Your task to perform on an android device: toggle javascript in the chrome app Image 0: 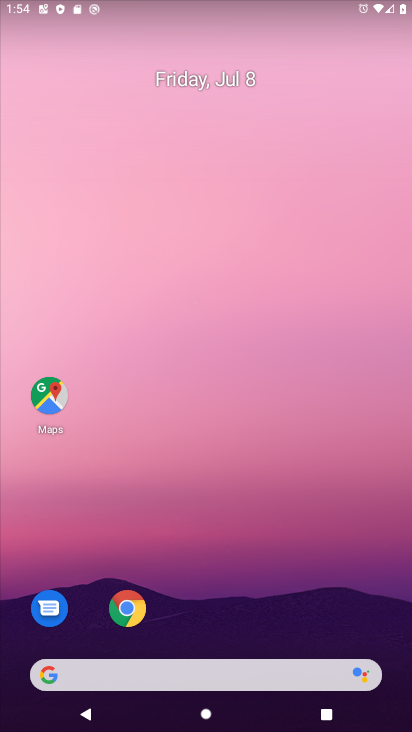
Step 0: click (136, 614)
Your task to perform on an android device: toggle javascript in the chrome app Image 1: 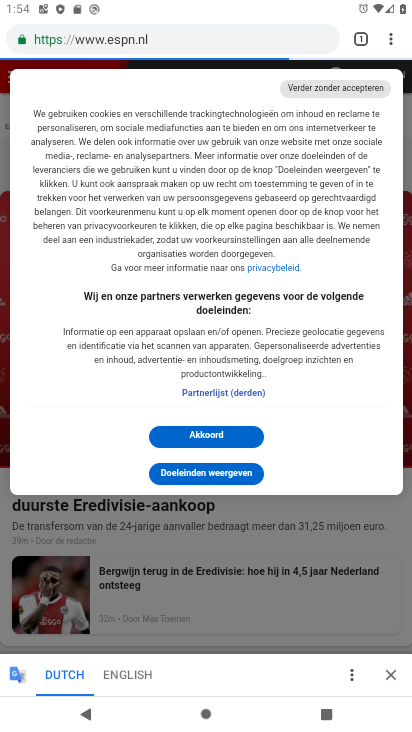
Step 1: click (390, 40)
Your task to perform on an android device: toggle javascript in the chrome app Image 2: 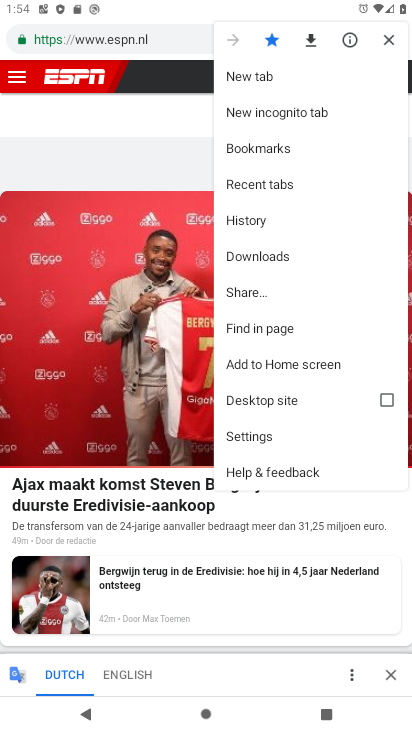
Step 2: click (400, 34)
Your task to perform on an android device: toggle javascript in the chrome app Image 3: 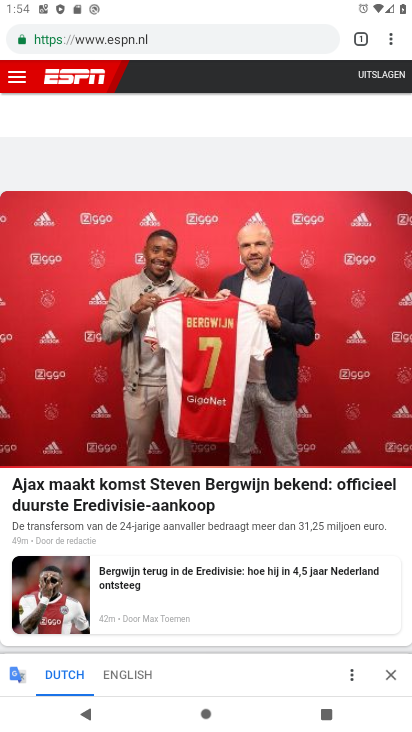
Step 3: click (395, 40)
Your task to perform on an android device: toggle javascript in the chrome app Image 4: 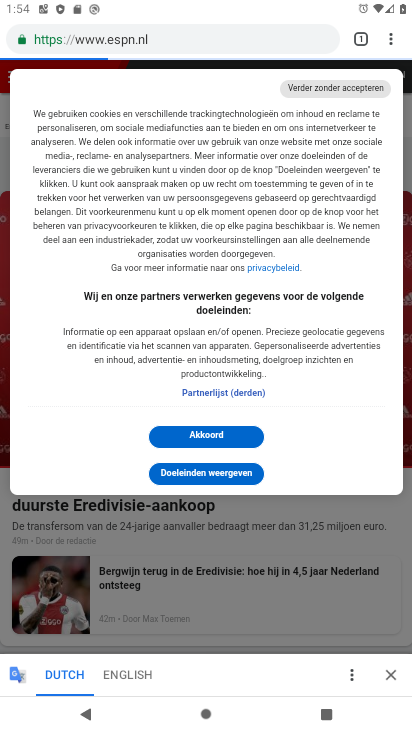
Step 4: click (395, 40)
Your task to perform on an android device: toggle javascript in the chrome app Image 5: 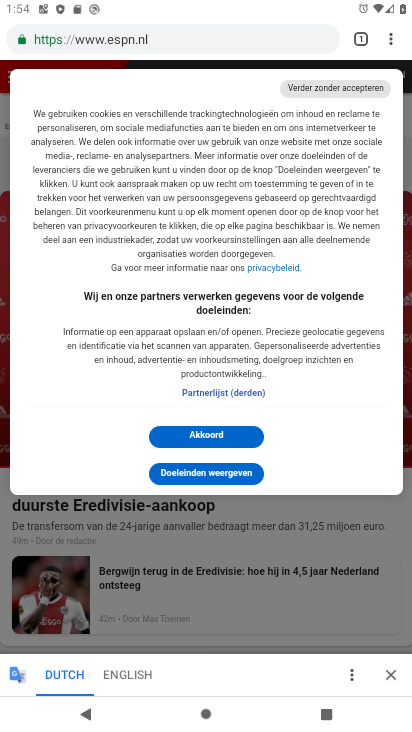
Step 5: click (395, 40)
Your task to perform on an android device: toggle javascript in the chrome app Image 6: 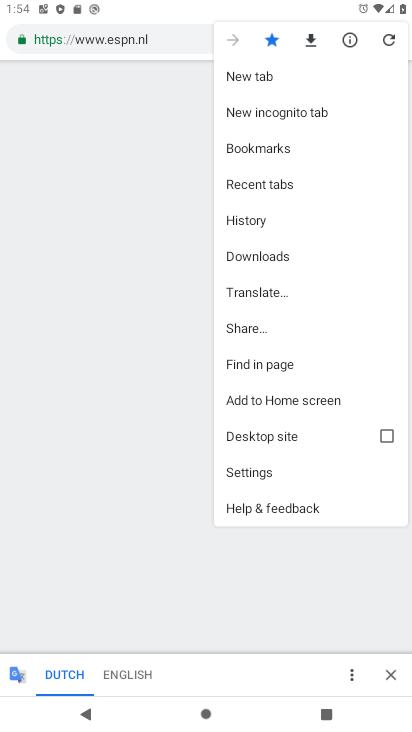
Step 6: click (288, 467)
Your task to perform on an android device: toggle javascript in the chrome app Image 7: 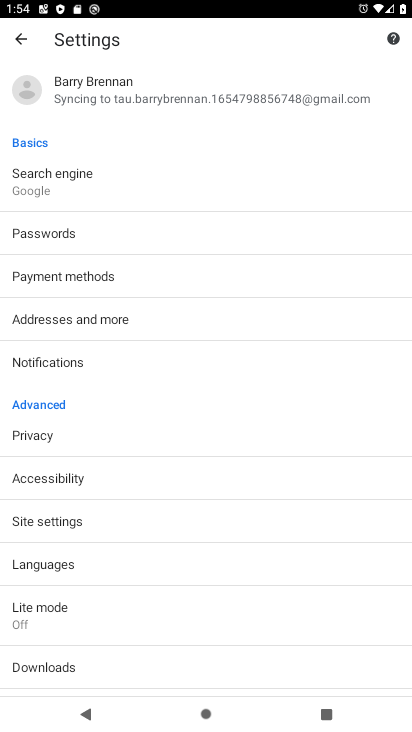
Step 7: click (46, 527)
Your task to perform on an android device: toggle javascript in the chrome app Image 8: 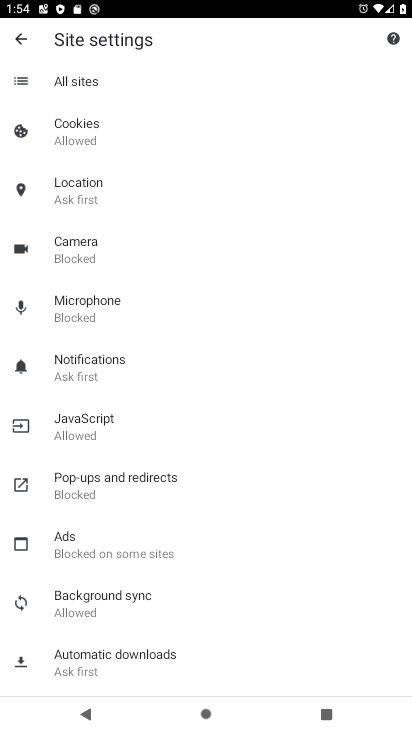
Step 8: click (84, 422)
Your task to perform on an android device: toggle javascript in the chrome app Image 9: 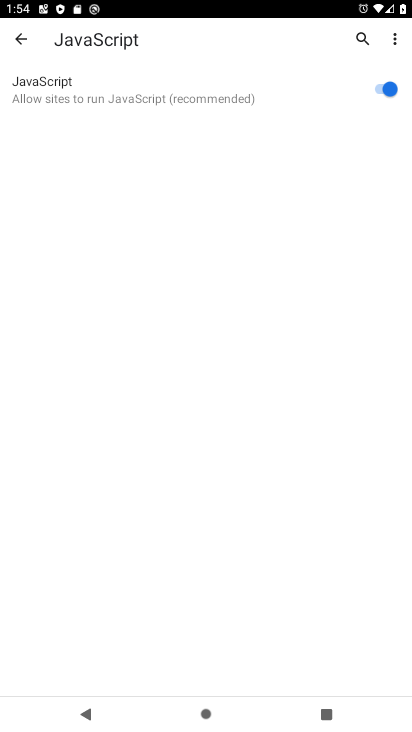
Step 9: click (385, 82)
Your task to perform on an android device: toggle javascript in the chrome app Image 10: 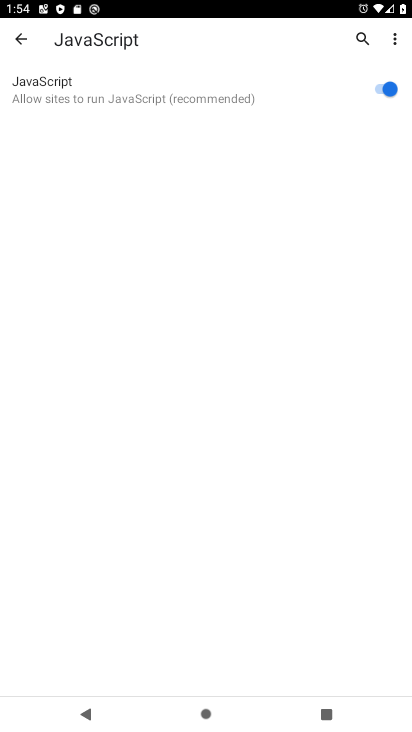
Step 10: click (385, 82)
Your task to perform on an android device: toggle javascript in the chrome app Image 11: 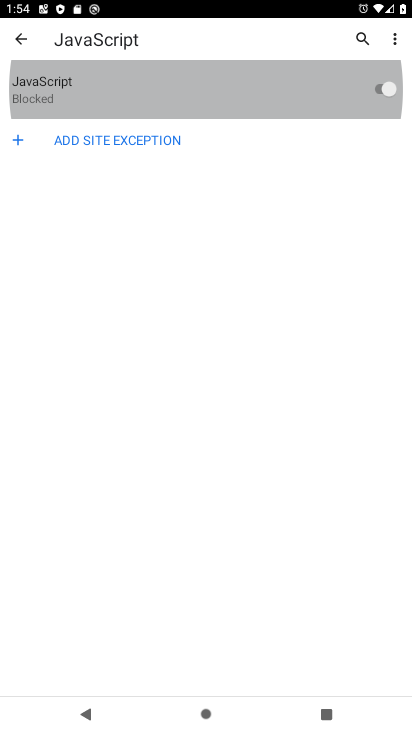
Step 11: click (385, 82)
Your task to perform on an android device: toggle javascript in the chrome app Image 12: 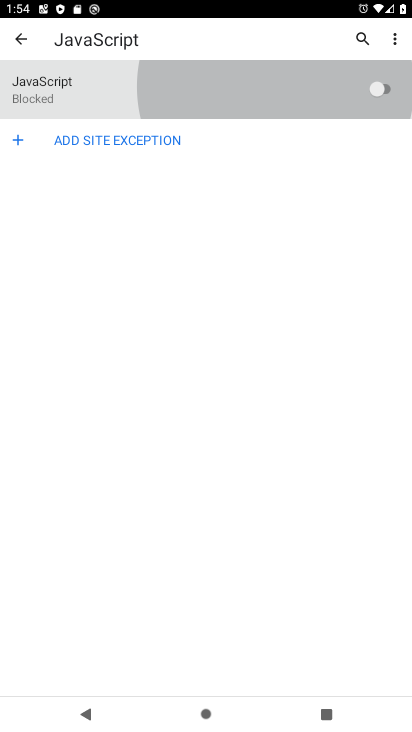
Step 12: click (385, 82)
Your task to perform on an android device: toggle javascript in the chrome app Image 13: 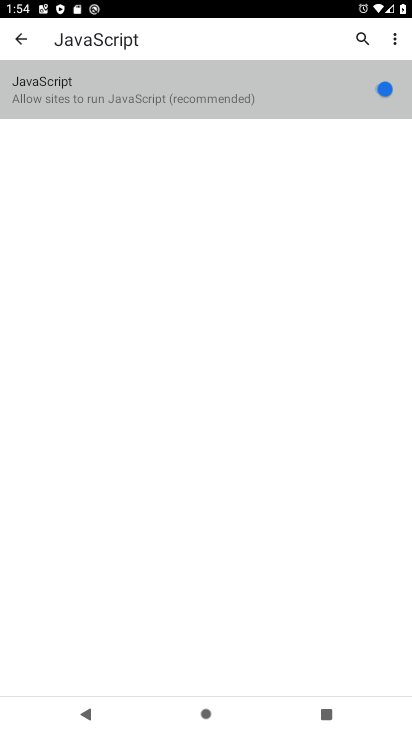
Step 13: click (385, 82)
Your task to perform on an android device: toggle javascript in the chrome app Image 14: 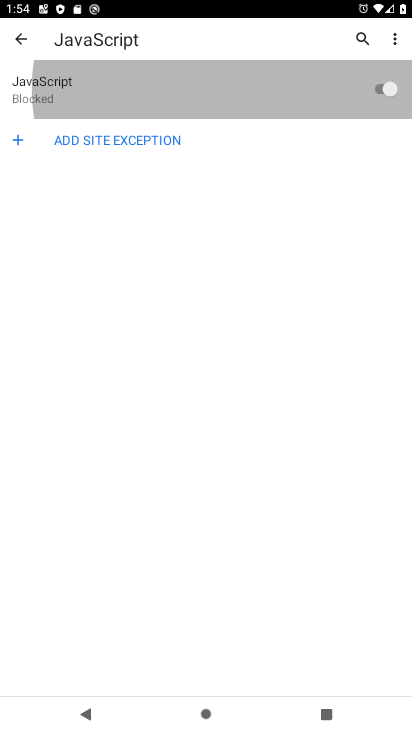
Step 14: click (385, 82)
Your task to perform on an android device: toggle javascript in the chrome app Image 15: 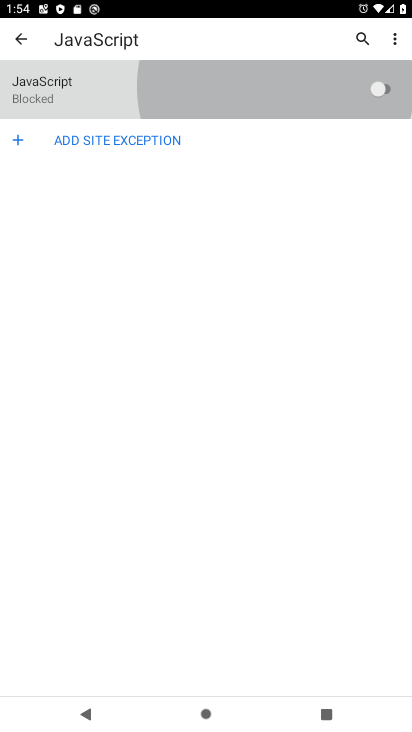
Step 15: click (385, 82)
Your task to perform on an android device: toggle javascript in the chrome app Image 16: 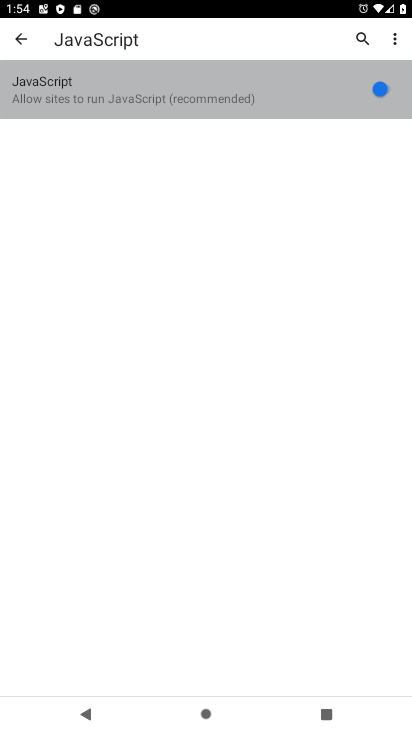
Step 16: click (385, 82)
Your task to perform on an android device: toggle javascript in the chrome app Image 17: 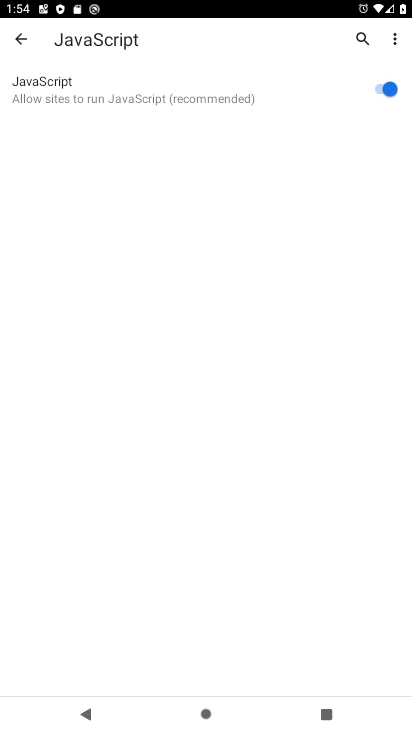
Step 17: task complete